Your task to perform on an android device: open chrome and create a bookmark for the current page Image 0: 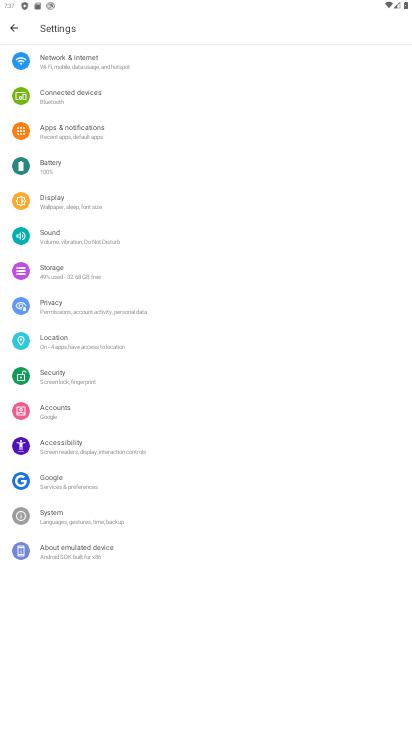
Step 0: press home button
Your task to perform on an android device: open chrome and create a bookmark for the current page Image 1: 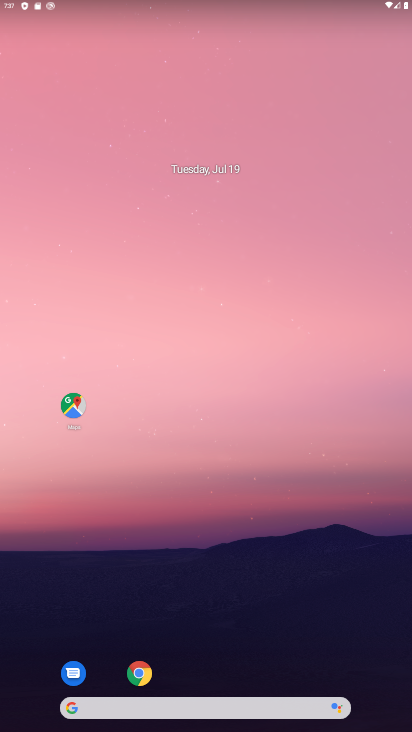
Step 1: click (145, 665)
Your task to perform on an android device: open chrome and create a bookmark for the current page Image 2: 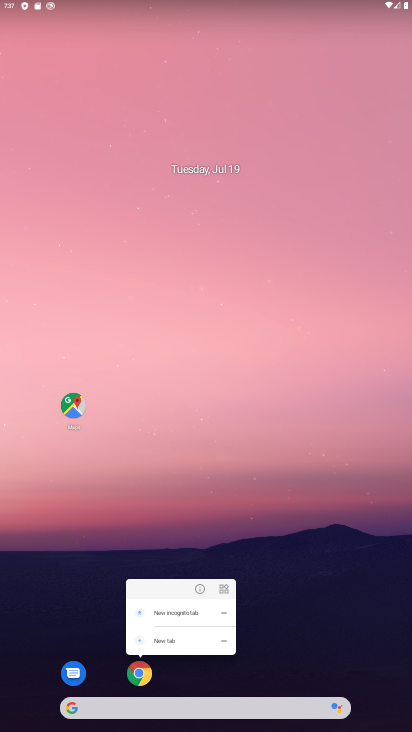
Step 2: click (136, 675)
Your task to perform on an android device: open chrome and create a bookmark for the current page Image 3: 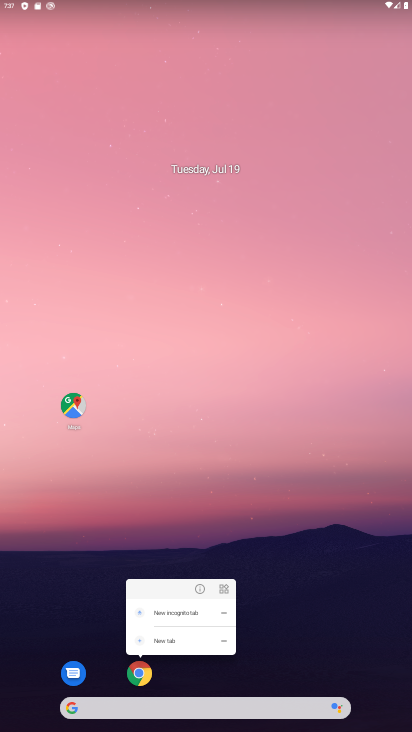
Step 3: click (136, 675)
Your task to perform on an android device: open chrome and create a bookmark for the current page Image 4: 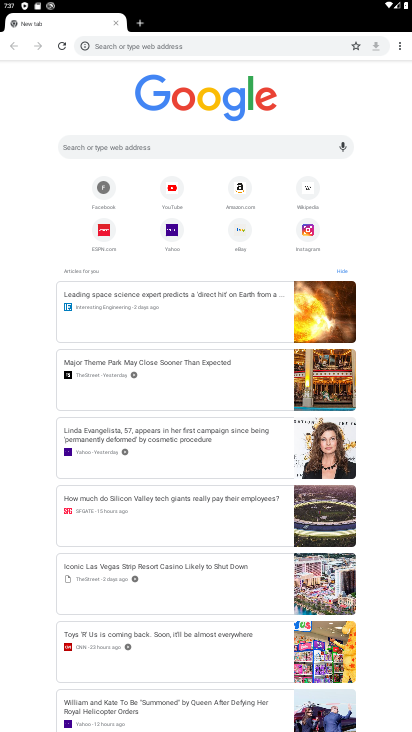
Step 4: click (402, 42)
Your task to perform on an android device: open chrome and create a bookmark for the current page Image 5: 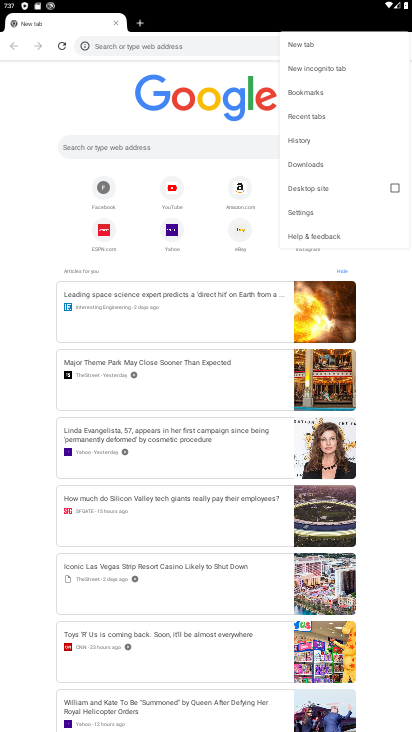
Step 5: click (89, 81)
Your task to perform on an android device: open chrome and create a bookmark for the current page Image 6: 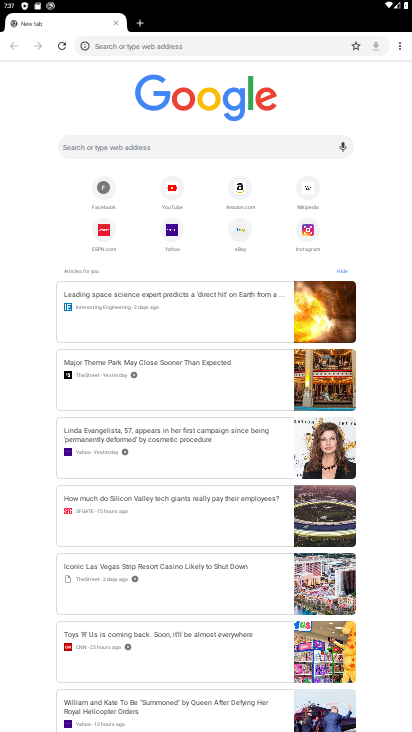
Step 6: click (356, 46)
Your task to perform on an android device: open chrome and create a bookmark for the current page Image 7: 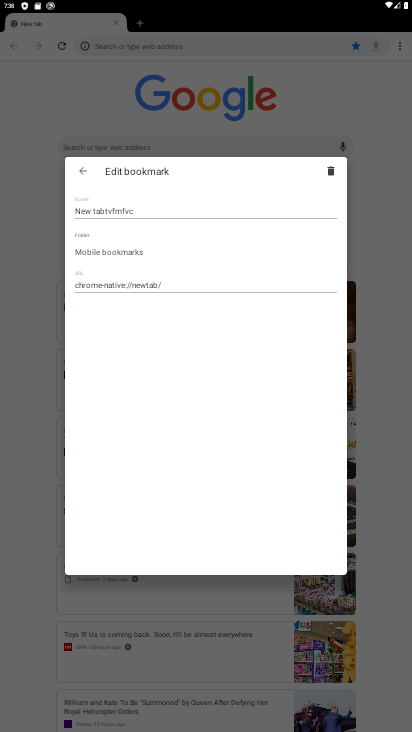
Step 7: click (78, 172)
Your task to perform on an android device: open chrome and create a bookmark for the current page Image 8: 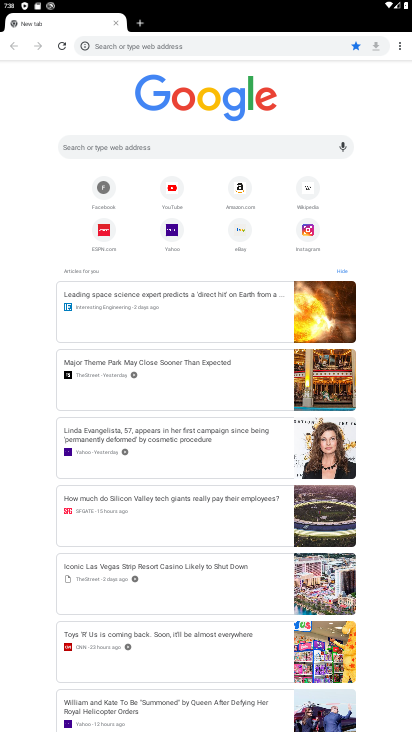
Step 8: task complete